Your task to perform on an android device: turn on priority inbox in the gmail app Image 0: 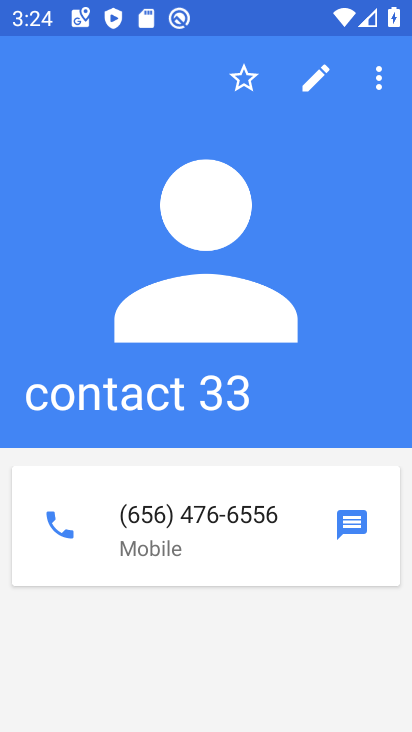
Step 0: press home button
Your task to perform on an android device: turn on priority inbox in the gmail app Image 1: 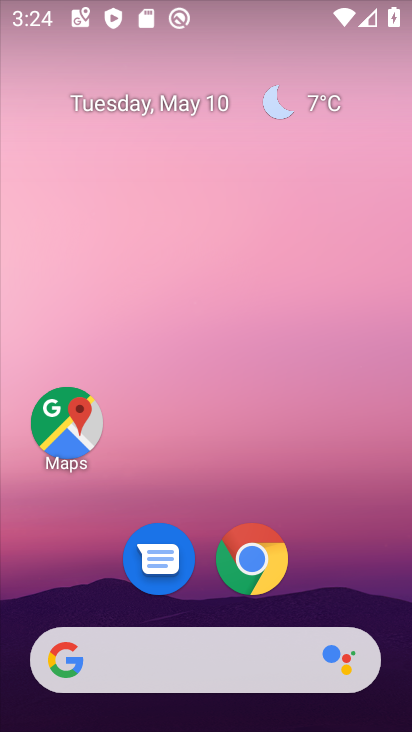
Step 1: drag from (289, 590) to (321, 206)
Your task to perform on an android device: turn on priority inbox in the gmail app Image 2: 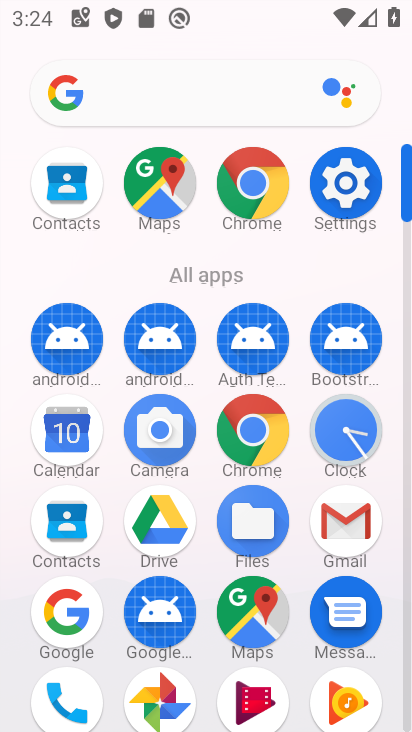
Step 2: click (358, 516)
Your task to perform on an android device: turn on priority inbox in the gmail app Image 3: 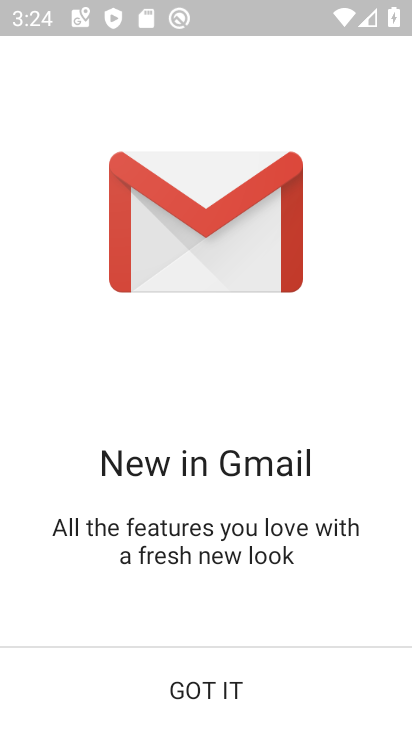
Step 3: click (236, 684)
Your task to perform on an android device: turn on priority inbox in the gmail app Image 4: 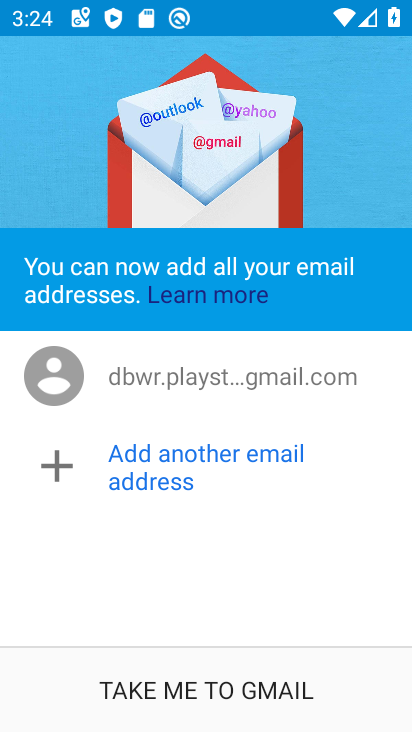
Step 4: click (236, 684)
Your task to perform on an android device: turn on priority inbox in the gmail app Image 5: 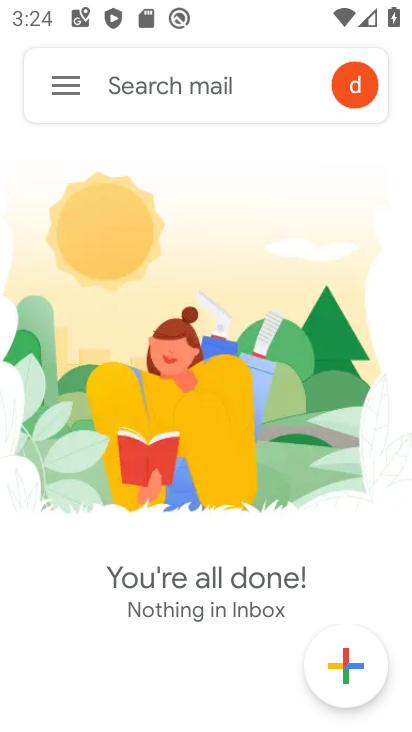
Step 5: click (74, 88)
Your task to perform on an android device: turn on priority inbox in the gmail app Image 6: 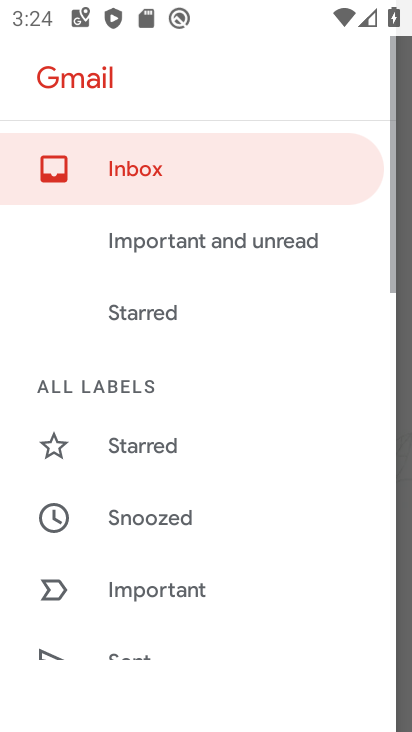
Step 6: drag from (193, 640) to (210, 264)
Your task to perform on an android device: turn on priority inbox in the gmail app Image 7: 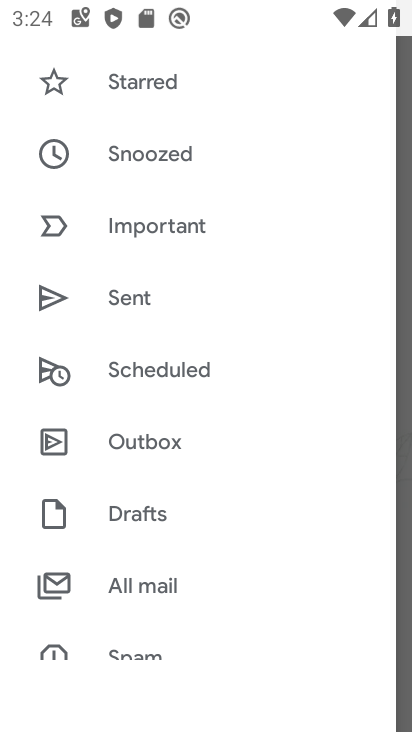
Step 7: drag from (200, 540) to (213, 200)
Your task to perform on an android device: turn on priority inbox in the gmail app Image 8: 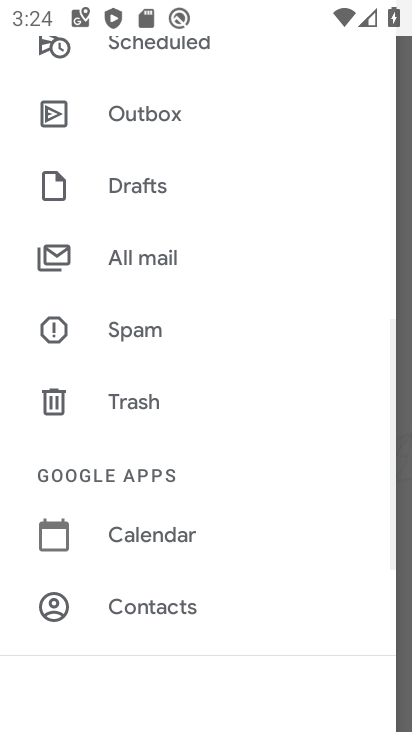
Step 8: drag from (222, 627) to (280, 318)
Your task to perform on an android device: turn on priority inbox in the gmail app Image 9: 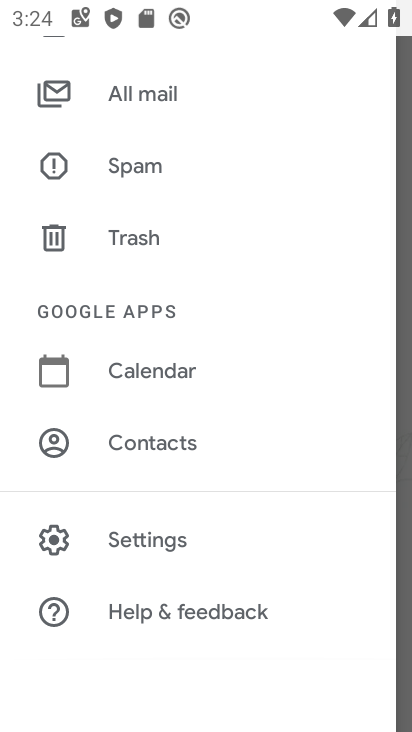
Step 9: click (177, 547)
Your task to perform on an android device: turn on priority inbox in the gmail app Image 10: 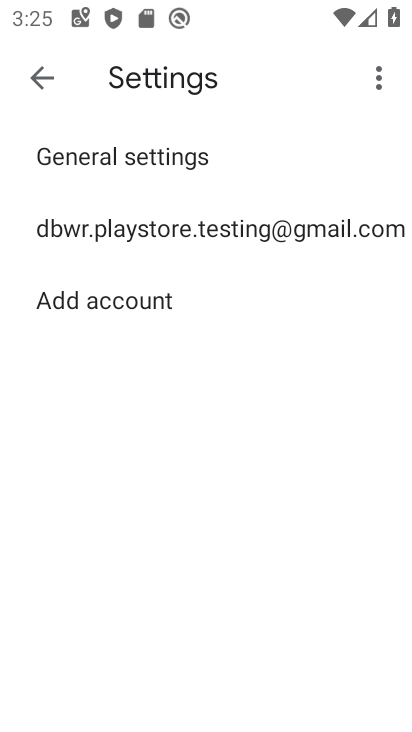
Step 10: click (197, 234)
Your task to perform on an android device: turn on priority inbox in the gmail app Image 11: 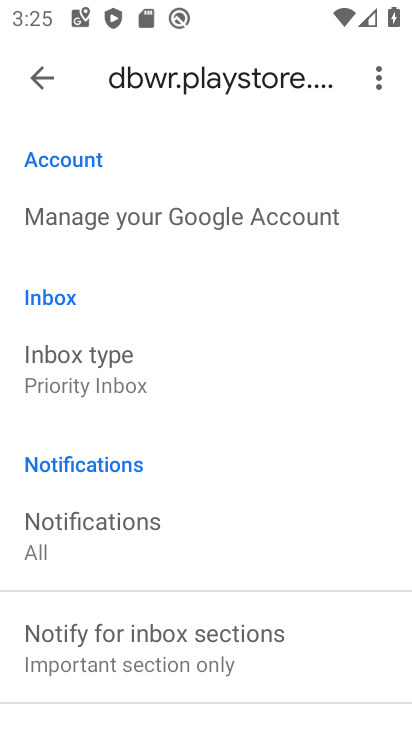
Step 11: click (138, 392)
Your task to perform on an android device: turn on priority inbox in the gmail app Image 12: 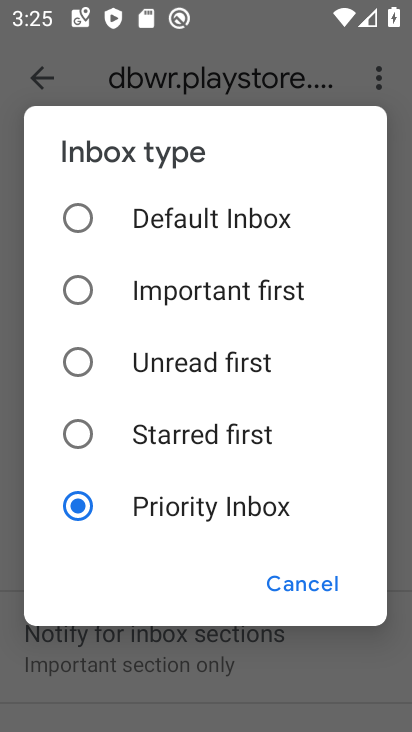
Step 12: task complete